Your task to perform on an android device: see tabs open on other devices in the chrome app Image 0: 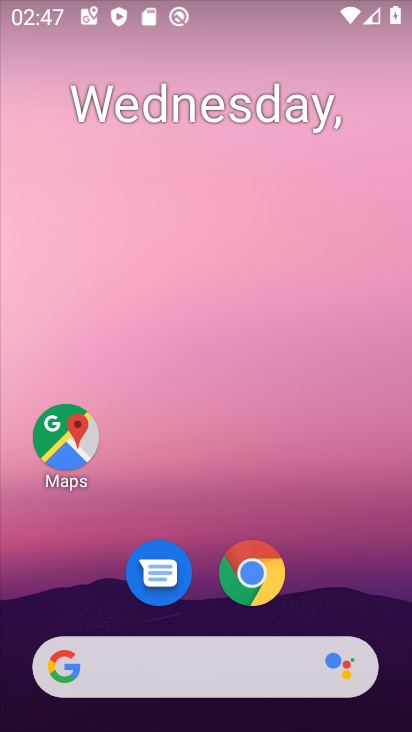
Step 0: click (251, 571)
Your task to perform on an android device: see tabs open on other devices in the chrome app Image 1: 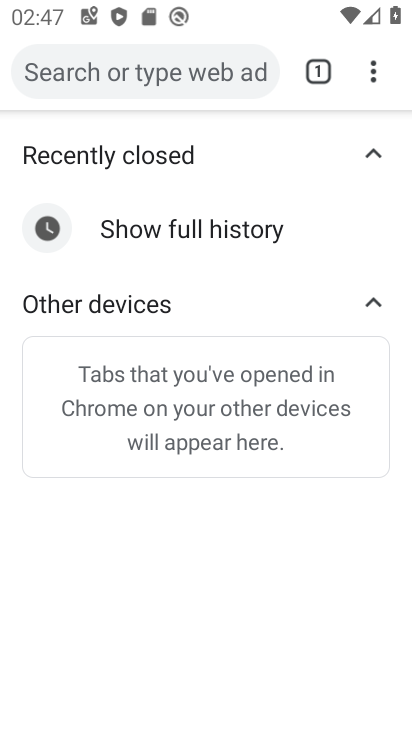
Step 1: task complete